Your task to perform on an android device: Go to Reddit.com Image 0: 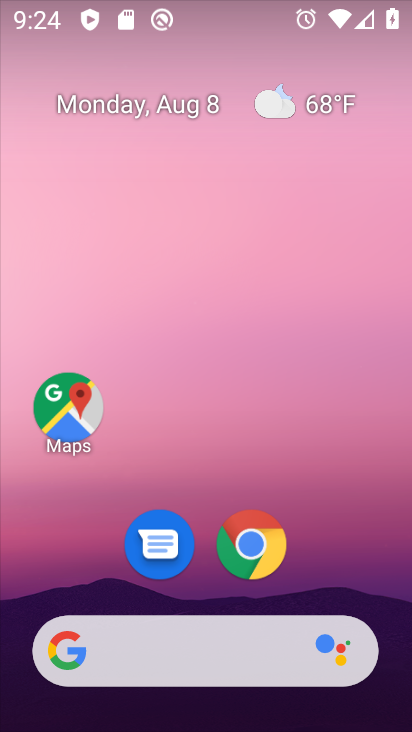
Step 0: press home button
Your task to perform on an android device: Go to Reddit.com Image 1: 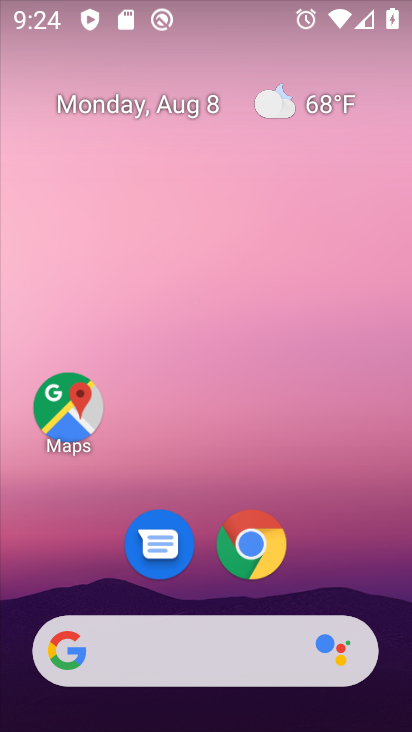
Step 1: drag from (308, 582) to (334, 45)
Your task to perform on an android device: Go to Reddit.com Image 2: 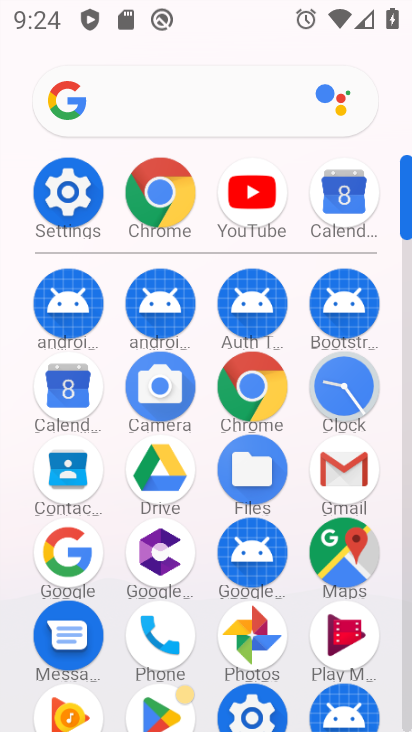
Step 2: click (156, 190)
Your task to perform on an android device: Go to Reddit.com Image 3: 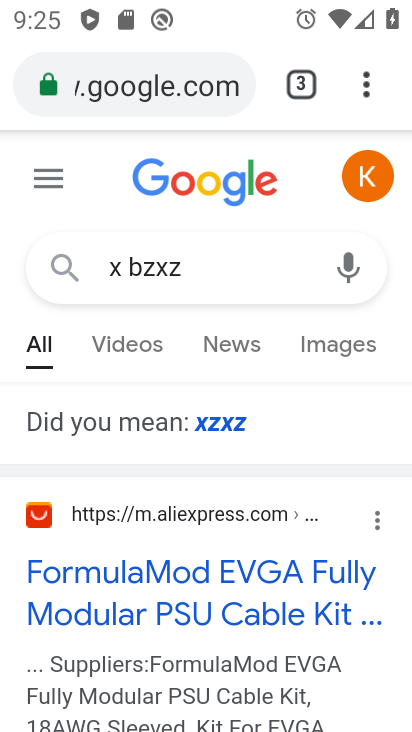
Step 3: click (292, 81)
Your task to perform on an android device: Go to Reddit.com Image 4: 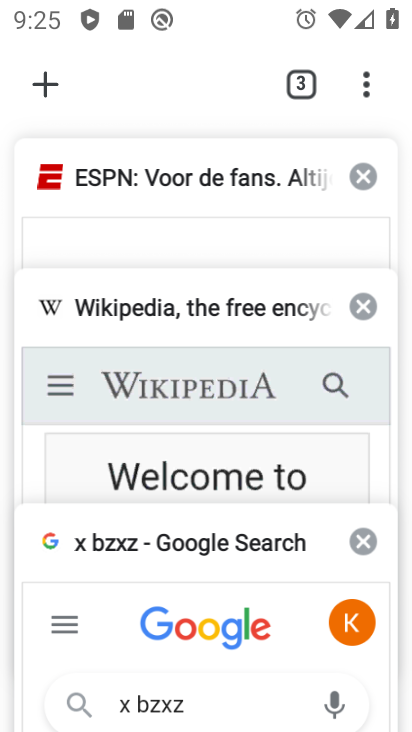
Step 4: click (46, 85)
Your task to perform on an android device: Go to Reddit.com Image 5: 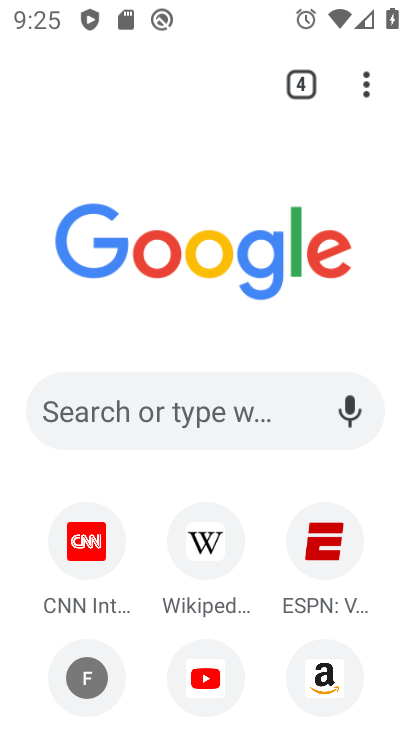
Step 5: click (130, 414)
Your task to perform on an android device: Go to Reddit.com Image 6: 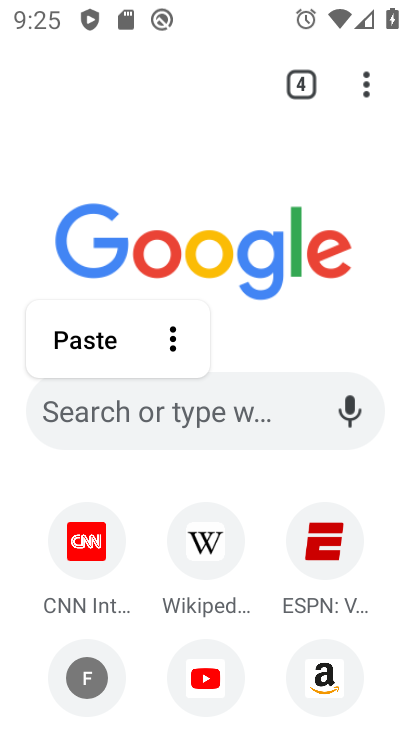
Step 6: type "reddit.com"
Your task to perform on an android device: Go to Reddit.com Image 7: 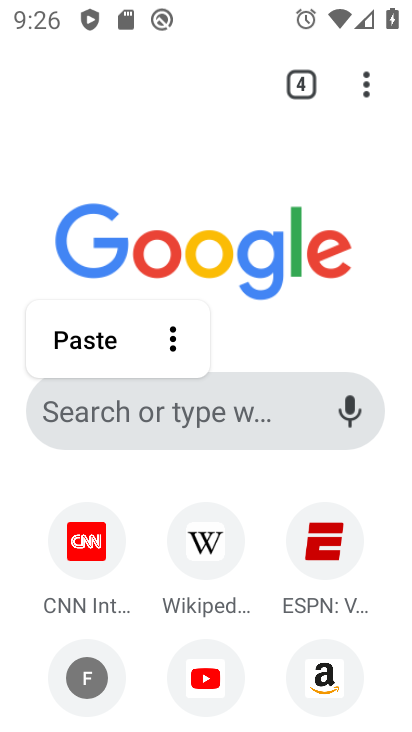
Step 7: click (121, 409)
Your task to perform on an android device: Go to Reddit.com Image 8: 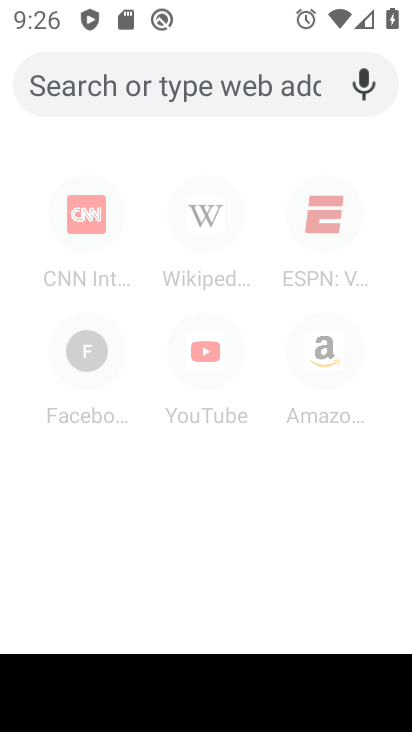
Step 8: type "reddit.com"
Your task to perform on an android device: Go to Reddit.com Image 9: 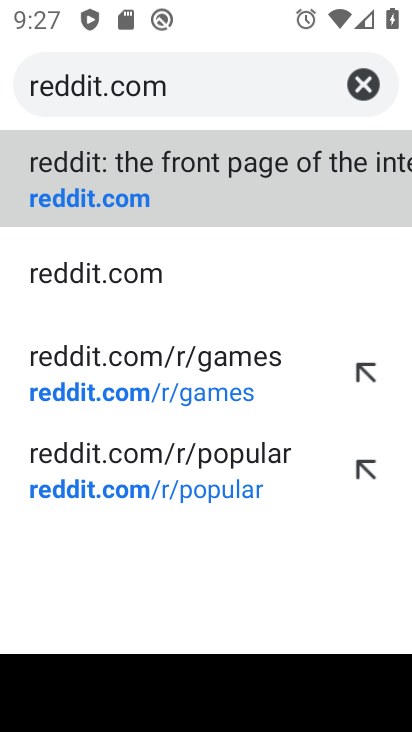
Step 9: click (100, 176)
Your task to perform on an android device: Go to Reddit.com Image 10: 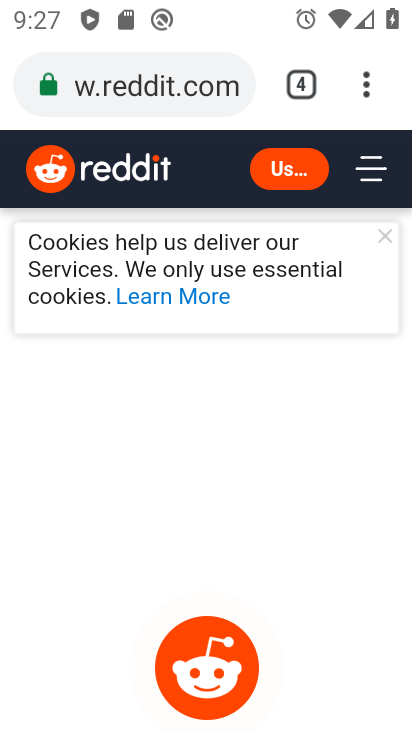
Step 10: task complete